Your task to perform on an android device: Open Amazon Image 0: 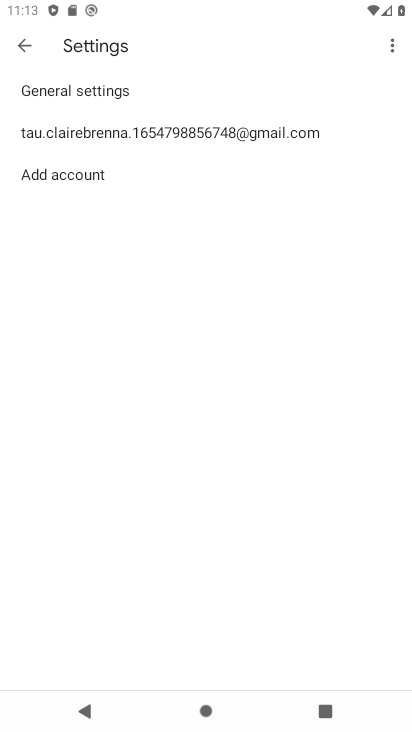
Step 0: press home button
Your task to perform on an android device: Open Amazon Image 1: 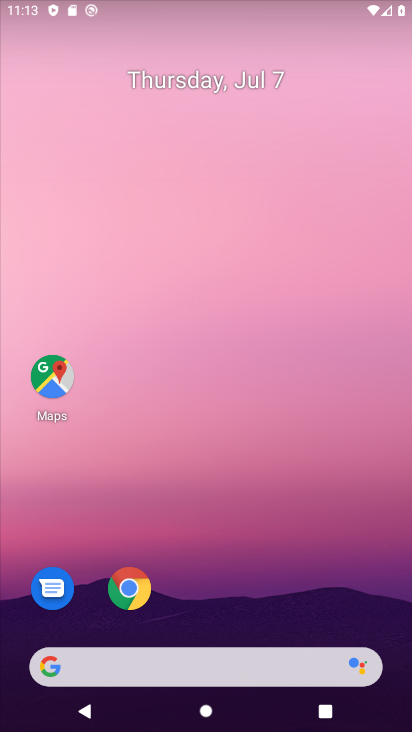
Step 1: drag from (234, 565) to (229, 138)
Your task to perform on an android device: Open Amazon Image 2: 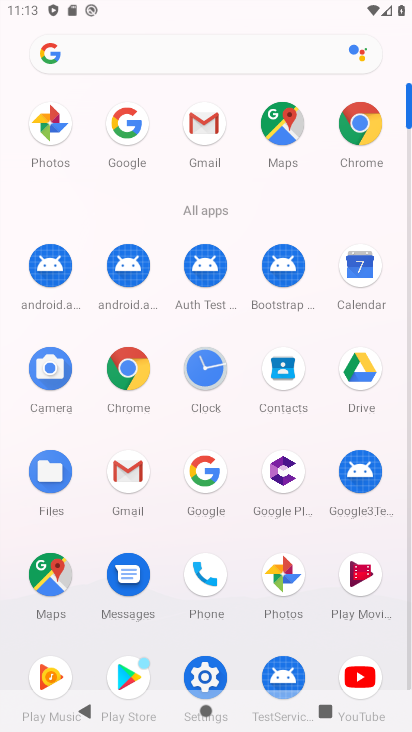
Step 2: click (357, 128)
Your task to perform on an android device: Open Amazon Image 3: 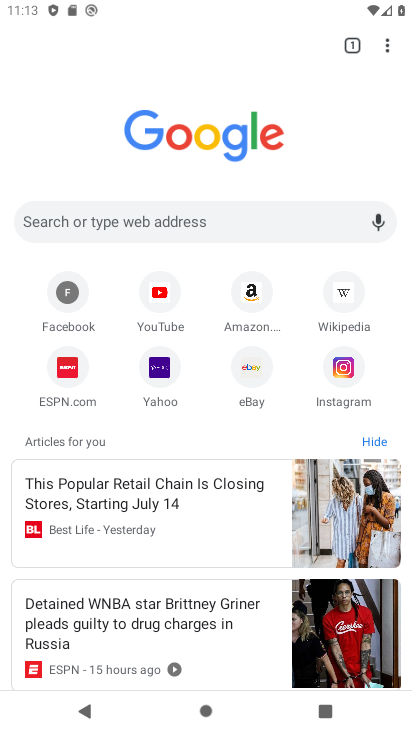
Step 3: click (250, 291)
Your task to perform on an android device: Open Amazon Image 4: 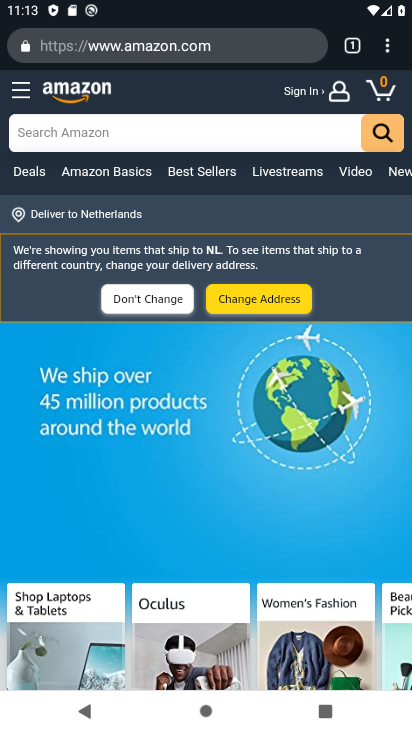
Step 4: task complete